Your task to perform on an android device: Go to ESPN.com Image 0: 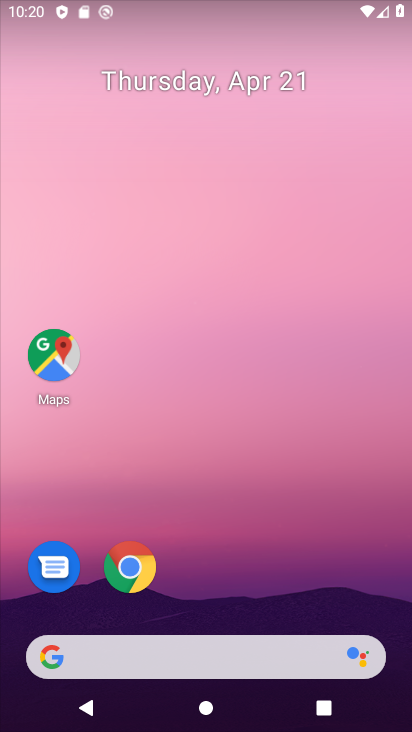
Step 0: click (138, 494)
Your task to perform on an android device: Go to ESPN.com Image 1: 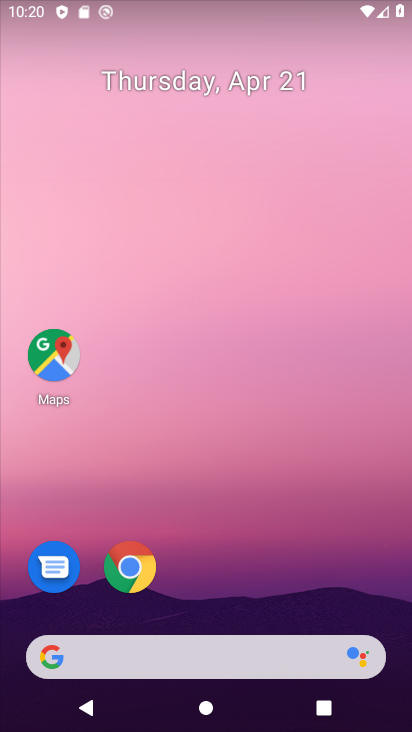
Step 1: click (129, 566)
Your task to perform on an android device: Go to ESPN.com Image 2: 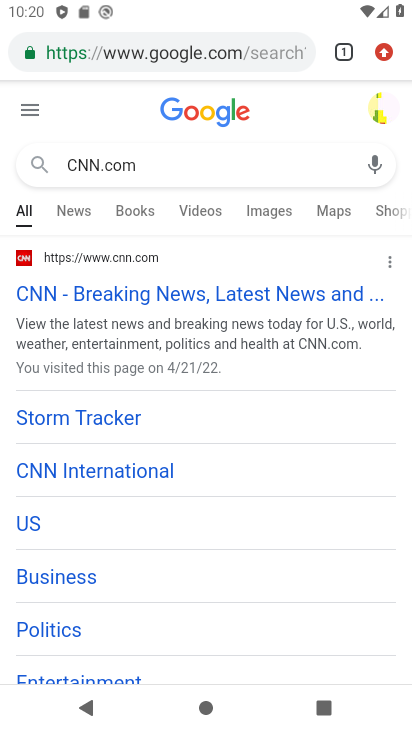
Step 2: click (279, 53)
Your task to perform on an android device: Go to ESPN.com Image 3: 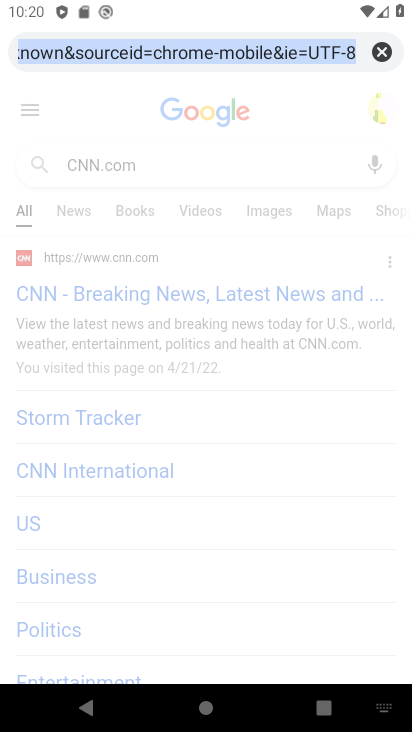
Step 3: click (377, 47)
Your task to perform on an android device: Go to ESPN.com Image 4: 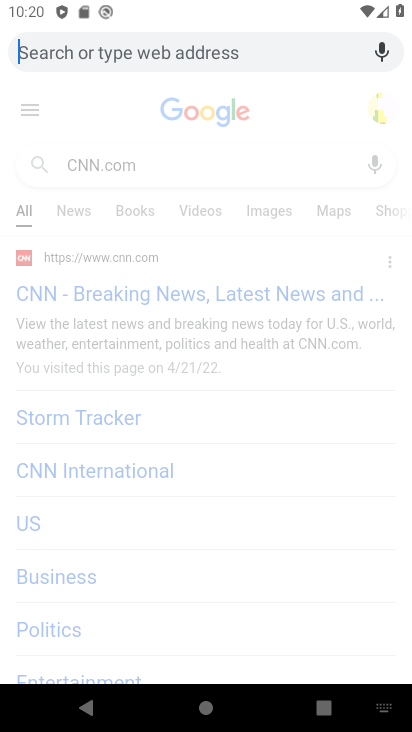
Step 4: click (336, 38)
Your task to perform on an android device: Go to ESPN.com Image 5: 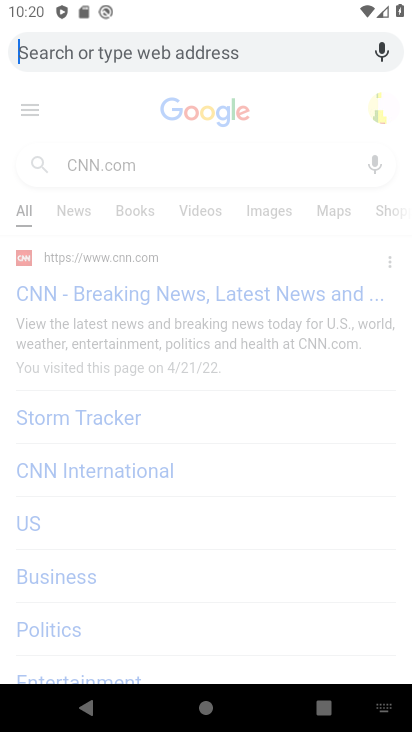
Step 5: type "ESPN.com"
Your task to perform on an android device: Go to ESPN.com Image 6: 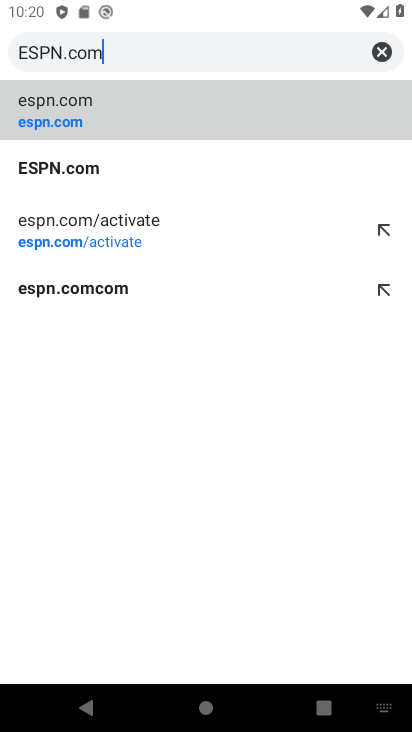
Step 6: click (87, 175)
Your task to perform on an android device: Go to ESPN.com Image 7: 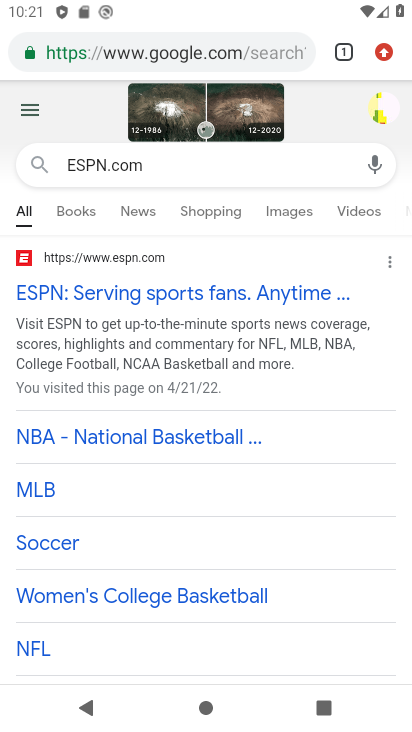
Step 7: task complete